Your task to perform on an android device: Open the map Image 0: 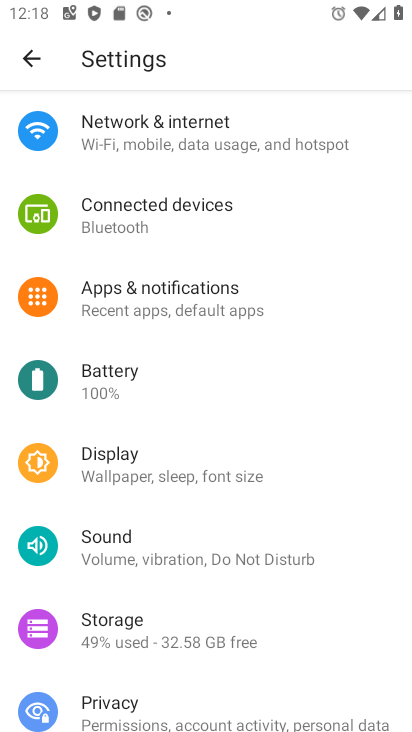
Step 0: press home button
Your task to perform on an android device: Open the map Image 1: 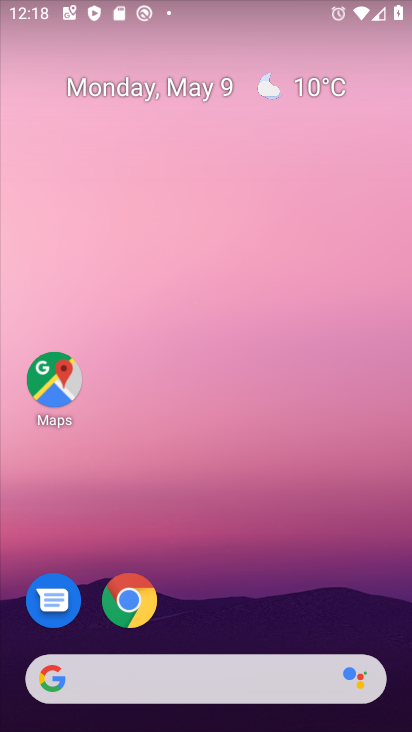
Step 1: click (59, 374)
Your task to perform on an android device: Open the map Image 2: 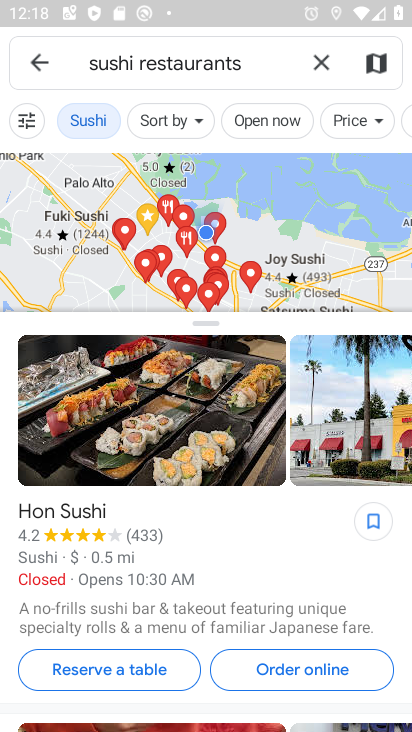
Step 2: task complete